Your task to perform on an android device: Go to sound settings Image 0: 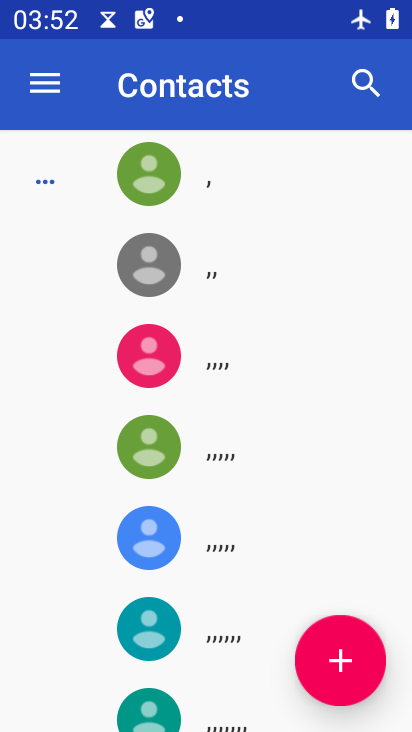
Step 0: press home button
Your task to perform on an android device: Go to sound settings Image 1: 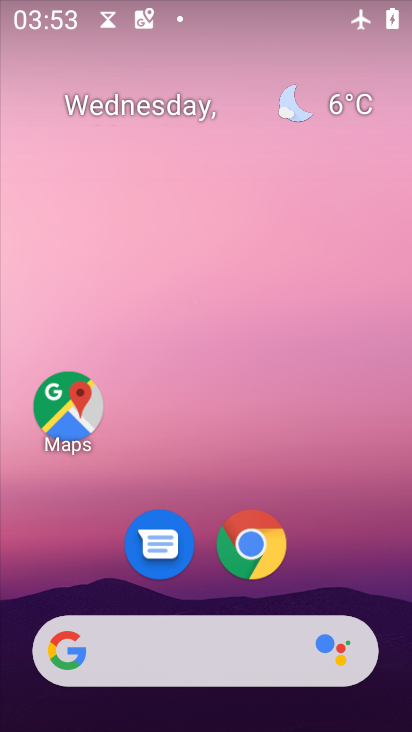
Step 1: drag from (332, 578) to (330, 67)
Your task to perform on an android device: Go to sound settings Image 2: 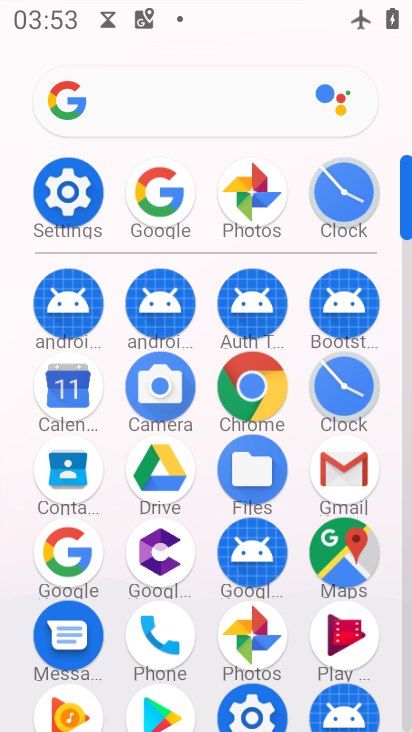
Step 2: click (62, 212)
Your task to perform on an android device: Go to sound settings Image 3: 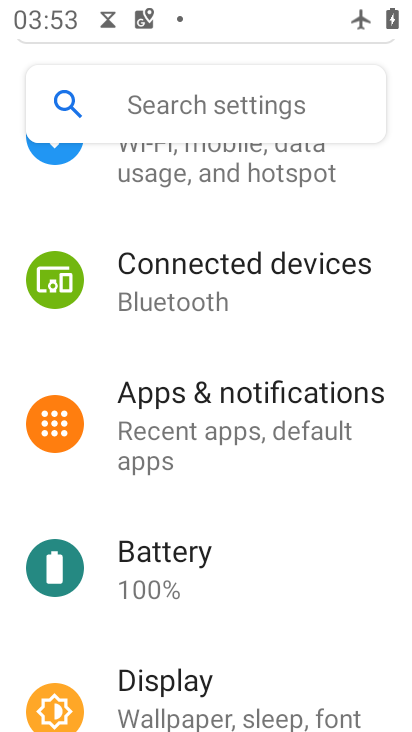
Step 3: drag from (229, 320) to (244, 646)
Your task to perform on an android device: Go to sound settings Image 4: 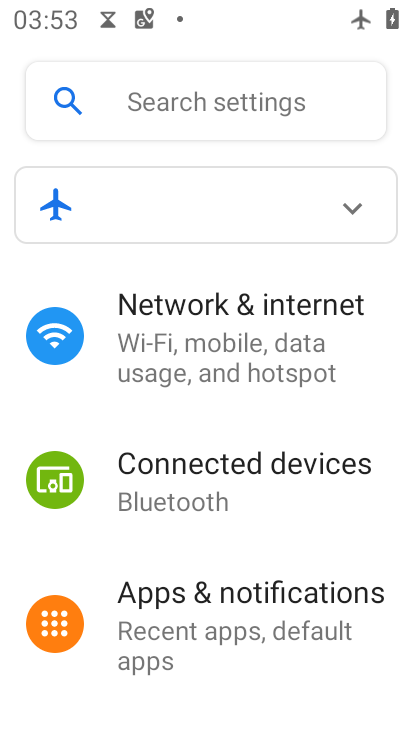
Step 4: drag from (201, 342) to (193, 518)
Your task to perform on an android device: Go to sound settings Image 5: 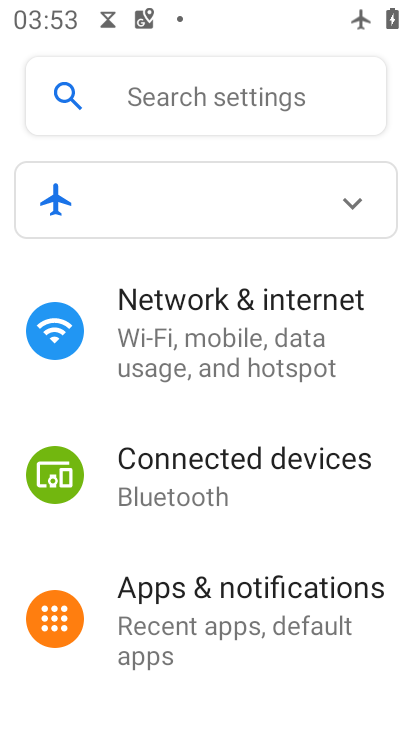
Step 5: drag from (204, 646) to (246, 215)
Your task to perform on an android device: Go to sound settings Image 6: 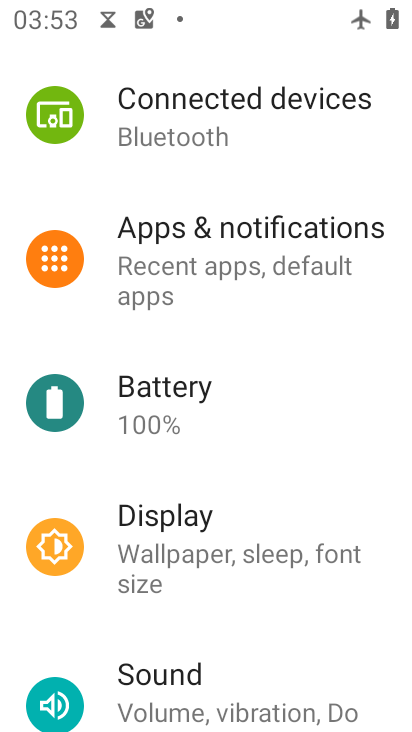
Step 6: click (151, 667)
Your task to perform on an android device: Go to sound settings Image 7: 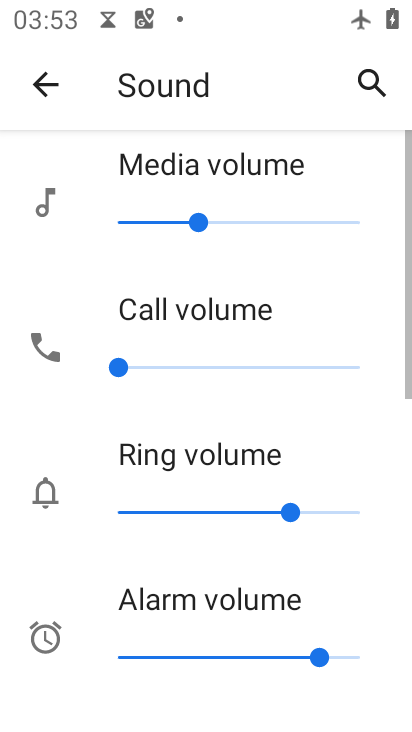
Step 7: task complete